Your task to perform on an android device: What's the weather going to be tomorrow? Image 0: 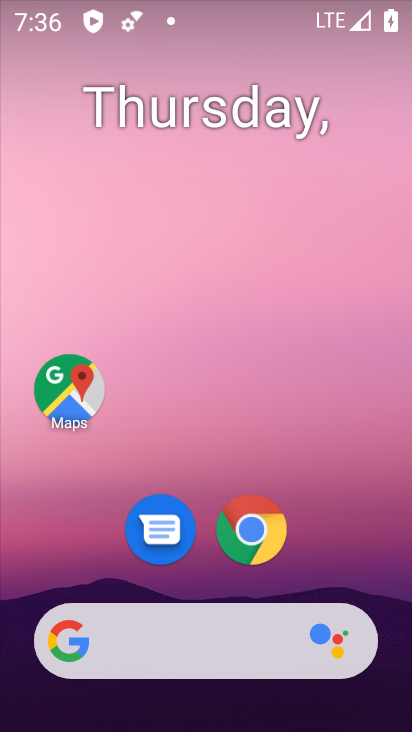
Step 0: click (246, 626)
Your task to perform on an android device: What's the weather going to be tomorrow? Image 1: 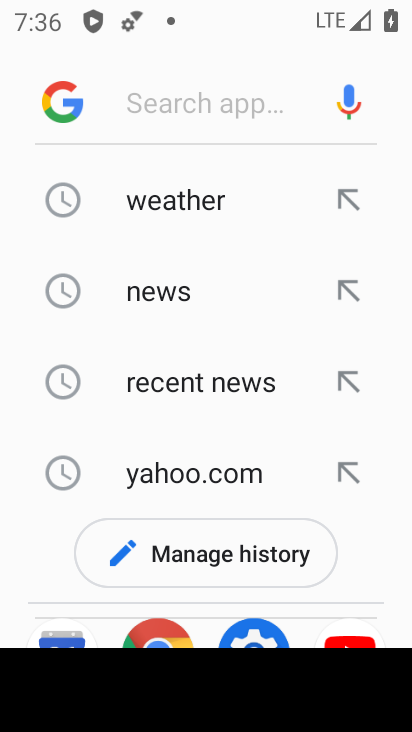
Step 1: click (201, 210)
Your task to perform on an android device: What's the weather going to be tomorrow? Image 2: 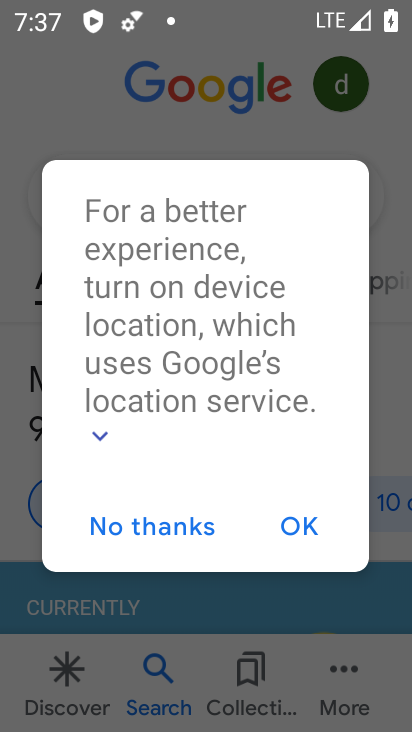
Step 2: click (170, 528)
Your task to perform on an android device: What's the weather going to be tomorrow? Image 3: 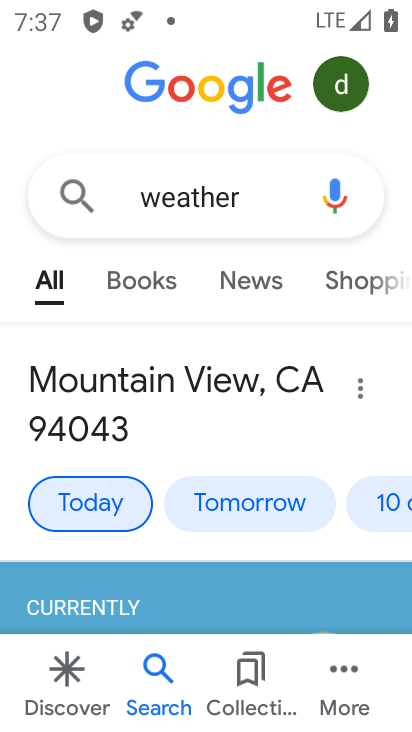
Step 3: click (283, 510)
Your task to perform on an android device: What's the weather going to be tomorrow? Image 4: 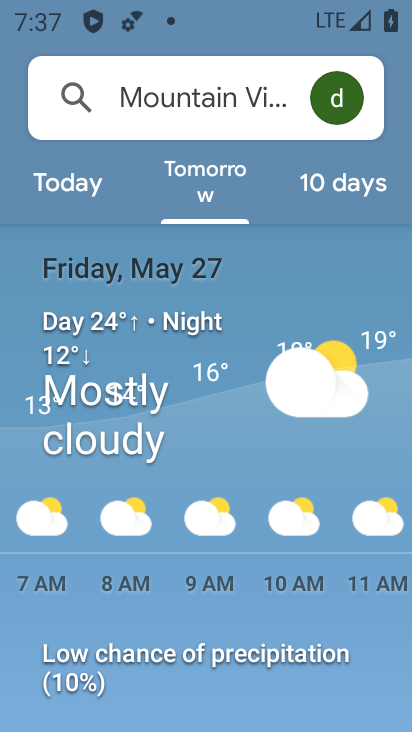
Step 4: task complete